Your task to perform on an android device: toggle translation in the chrome app Image 0: 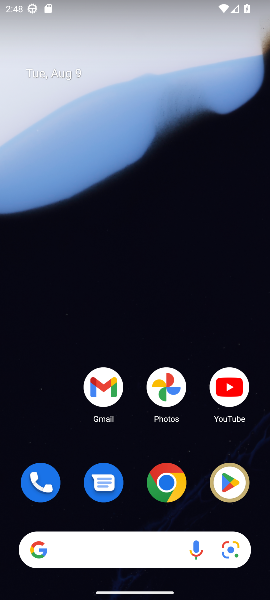
Step 0: click (155, 475)
Your task to perform on an android device: toggle translation in the chrome app Image 1: 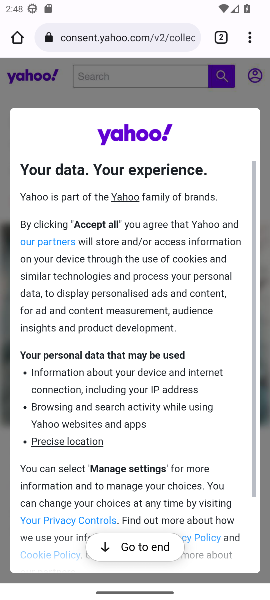
Step 1: click (248, 36)
Your task to perform on an android device: toggle translation in the chrome app Image 2: 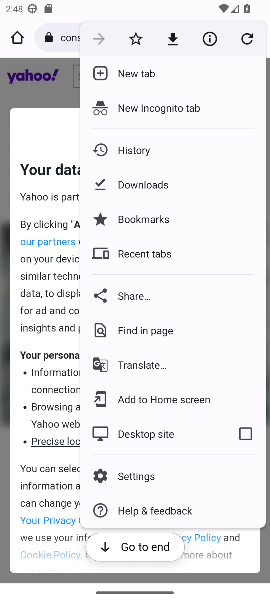
Step 2: click (159, 479)
Your task to perform on an android device: toggle translation in the chrome app Image 3: 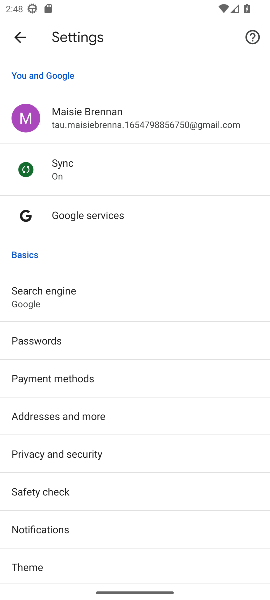
Step 3: drag from (96, 501) to (99, 261)
Your task to perform on an android device: toggle translation in the chrome app Image 4: 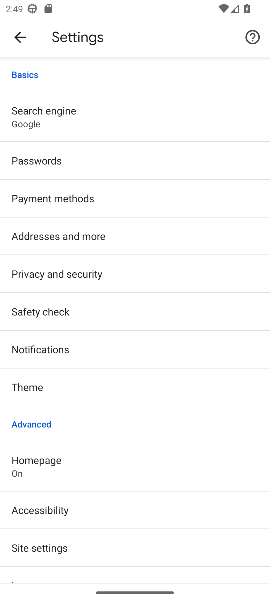
Step 4: drag from (112, 534) to (136, 299)
Your task to perform on an android device: toggle translation in the chrome app Image 5: 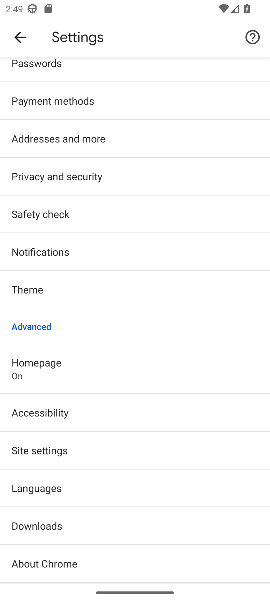
Step 5: click (93, 487)
Your task to perform on an android device: toggle translation in the chrome app Image 6: 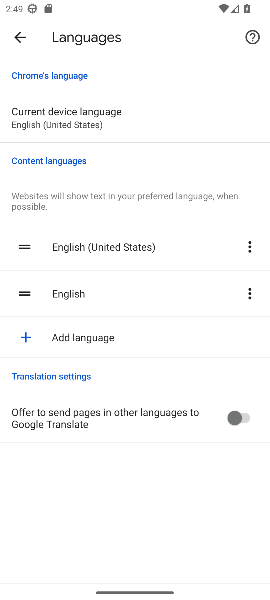
Step 6: click (237, 410)
Your task to perform on an android device: toggle translation in the chrome app Image 7: 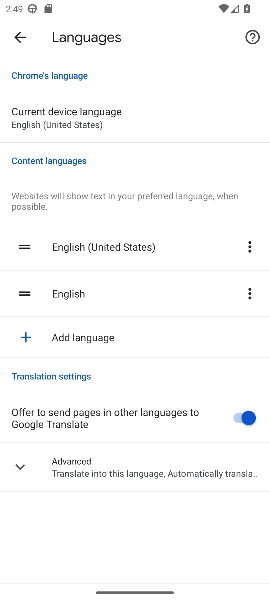
Step 7: task complete